Your task to perform on an android device: empty trash in google photos Image 0: 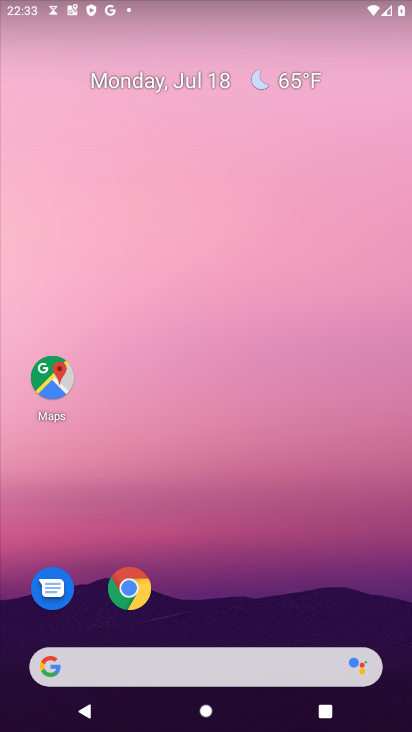
Step 0: drag from (171, 664) to (165, 137)
Your task to perform on an android device: empty trash in google photos Image 1: 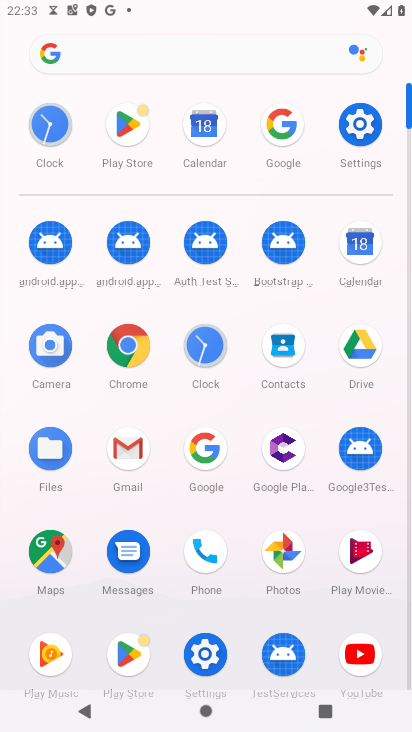
Step 1: click (282, 550)
Your task to perform on an android device: empty trash in google photos Image 2: 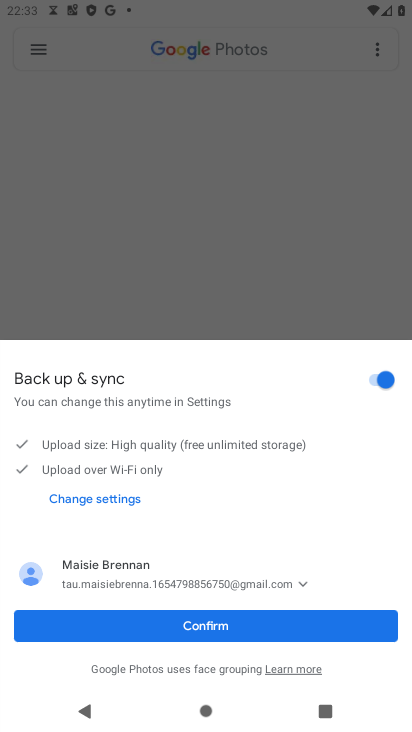
Step 2: click (225, 621)
Your task to perform on an android device: empty trash in google photos Image 3: 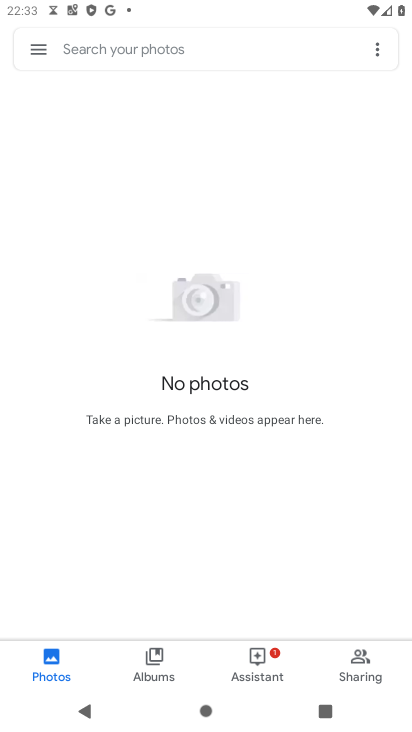
Step 3: click (34, 49)
Your task to perform on an android device: empty trash in google photos Image 4: 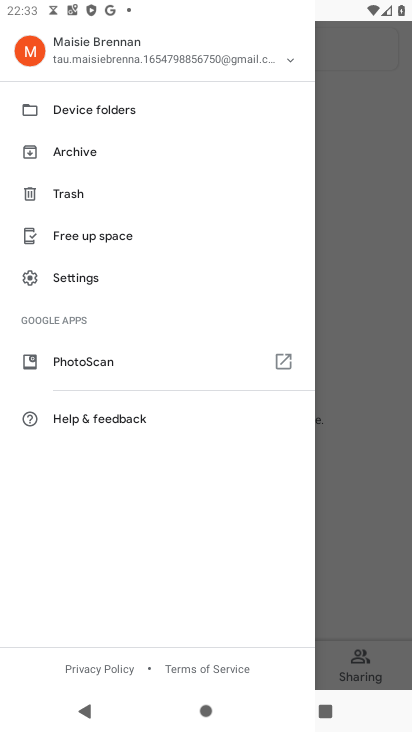
Step 4: click (64, 197)
Your task to perform on an android device: empty trash in google photos Image 5: 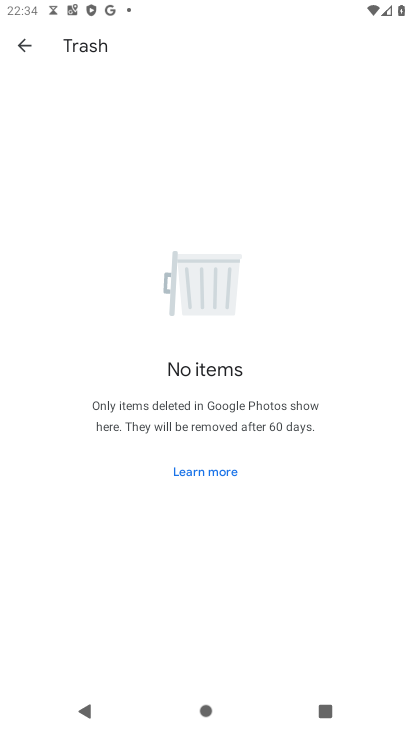
Step 5: task complete